Your task to perform on an android device: add a label to a message in the gmail app Image 0: 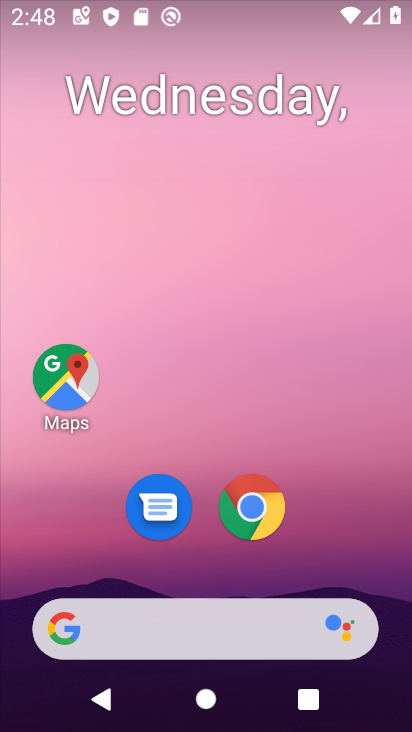
Step 0: drag from (336, 525) to (280, 112)
Your task to perform on an android device: add a label to a message in the gmail app Image 1: 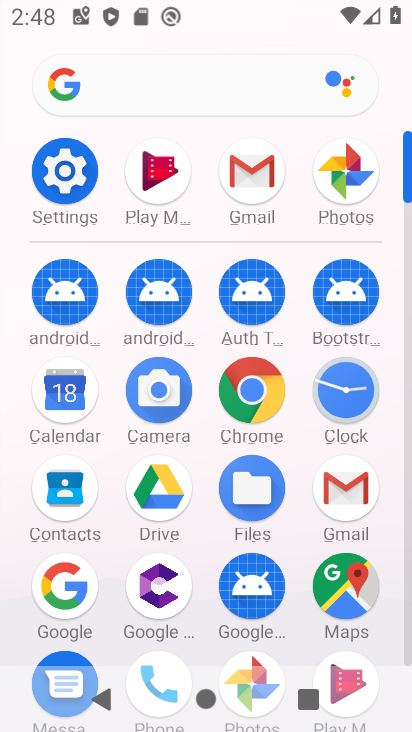
Step 1: click (253, 200)
Your task to perform on an android device: add a label to a message in the gmail app Image 2: 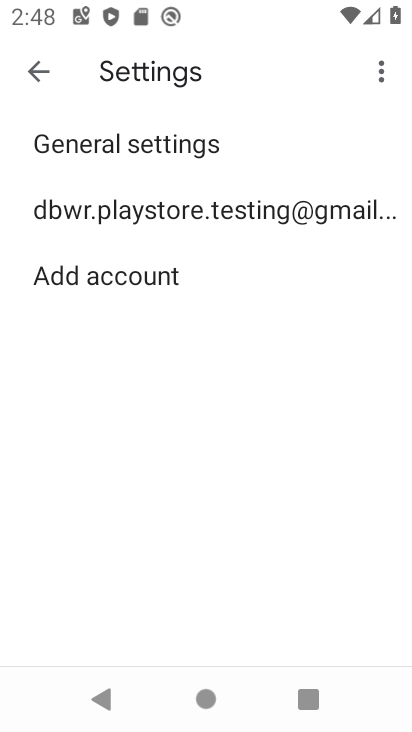
Step 2: task complete